Your task to perform on an android device: Open Chrome and go to settings Image 0: 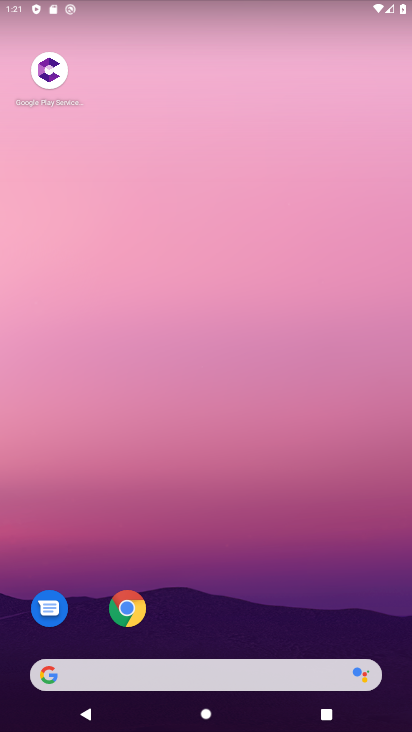
Step 0: click (134, 610)
Your task to perform on an android device: Open Chrome and go to settings Image 1: 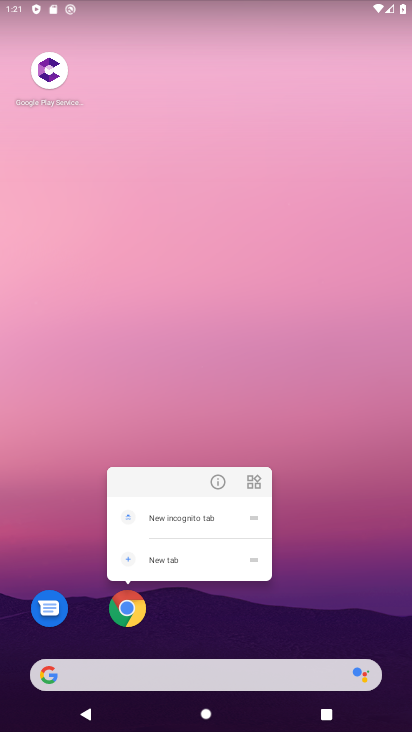
Step 1: click (134, 610)
Your task to perform on an android device: Open Chrome and go to settings Image 2: 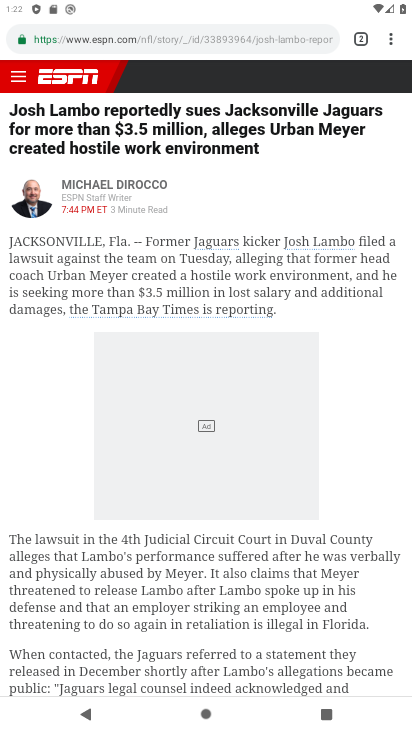
Step 2: click (390, 38)
Your task to perform on an android device: Open Chrome and go to settings Image 3: 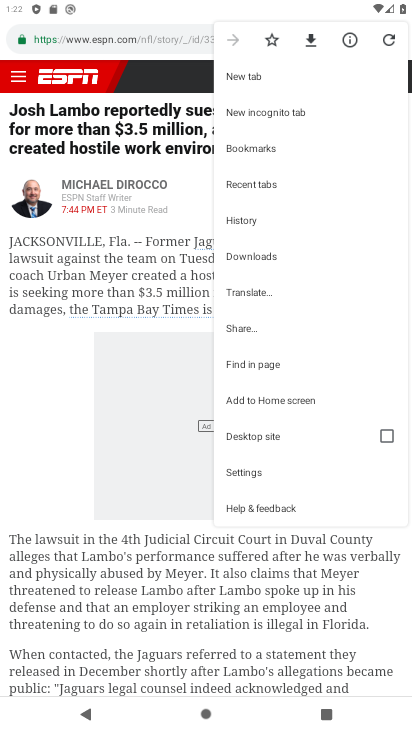
Step 3: click (268, 471)
Your task to perform on an android device: Open Chrome and go to settings Image 4: 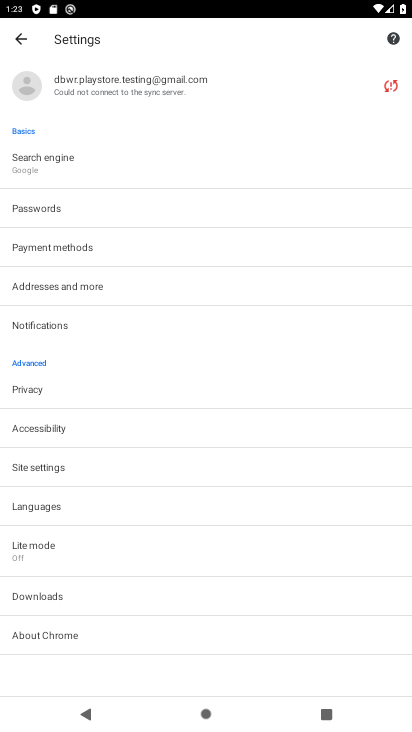
Step 4: task complete